Your task to perform on an android device: delete a single message in the gmail app Image 0: 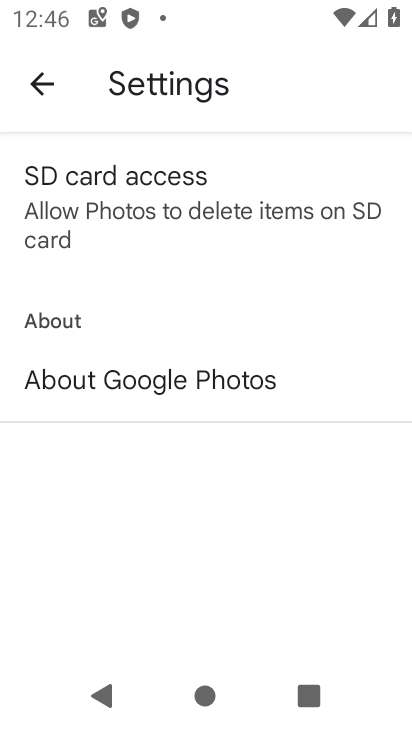
Step 0: press home button
Your task to perform on an android device: delete a single message in the gmail app Image 1: 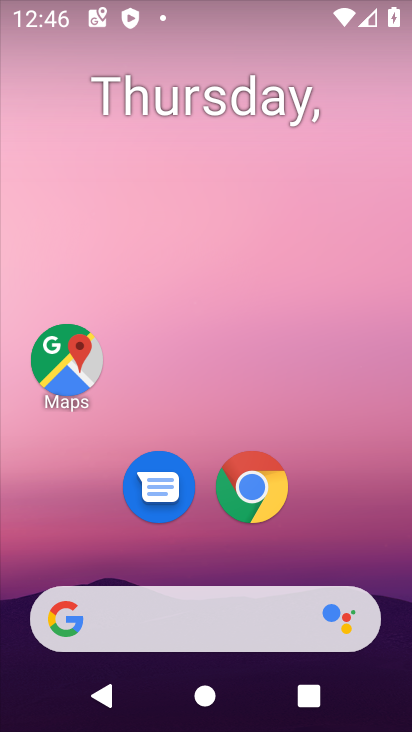
Step 1: drag from (349, 556) to (288, 37)
Your task to perform on an android device: delete a single message in the gmail app Image 2: 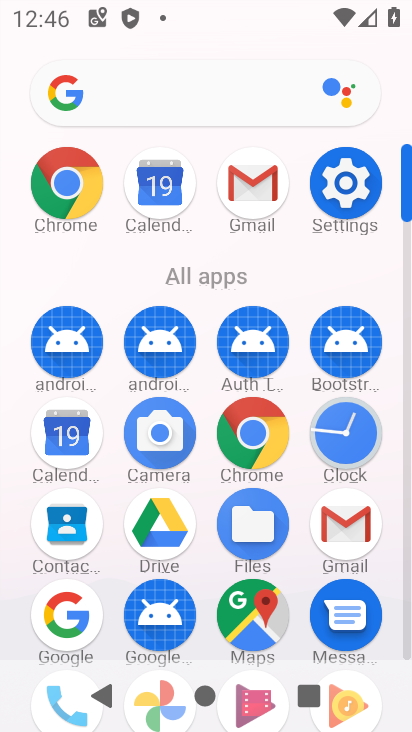
Step 2: click (259, 178)
Your task to perform on an android device: delete a single message in the gmail app Image 3: 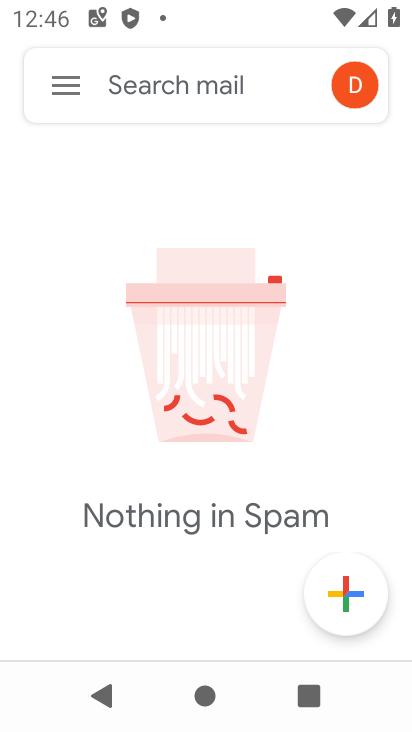
Step 3: click (44, 83)
Your task to perform on an android device: delete a single message in the gmail app Image 4: 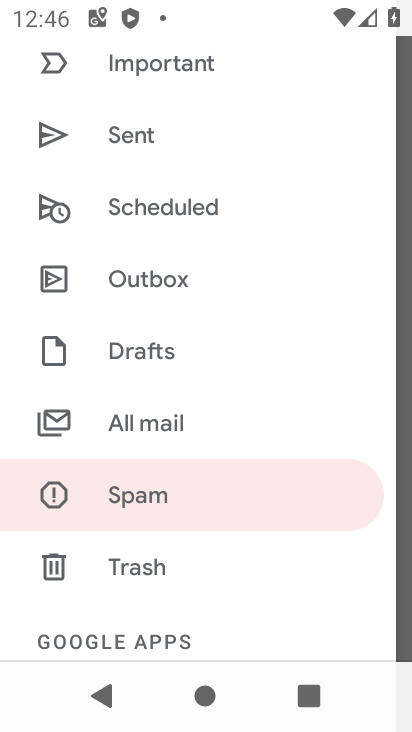
Step 4: drag from (181, 579) to (170, 93)
Your task to perform on an android device: delete a single message in the gmail app Image 5: 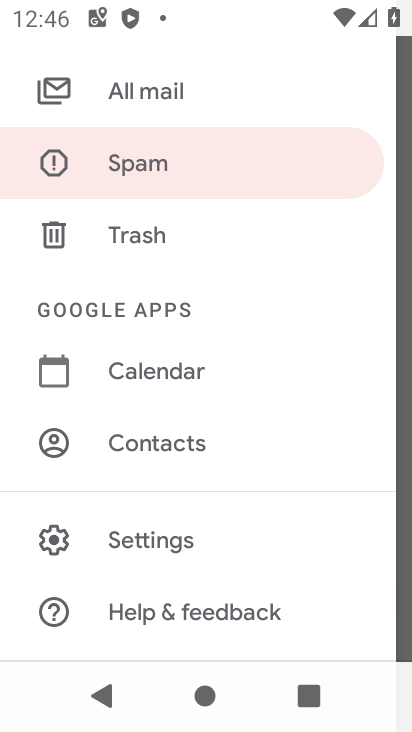
Step 5: click (183, 97)
Your task to perform on an android device: delete a single message in the gmail app Image 6: 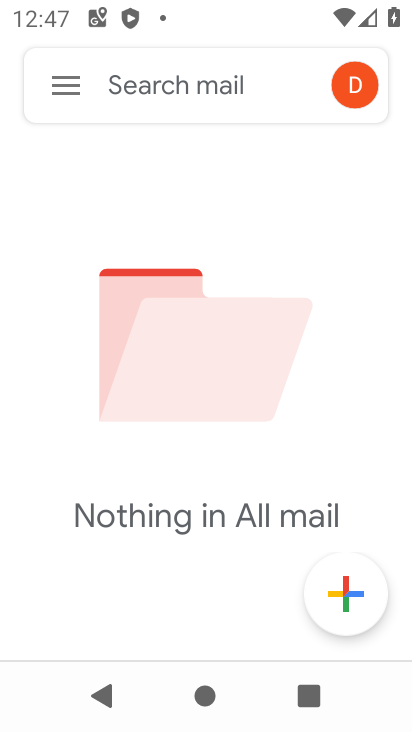
Step 6: task complete